Your task to perform on an android device: open the mobile data screen to see how much data has been used Image 0: 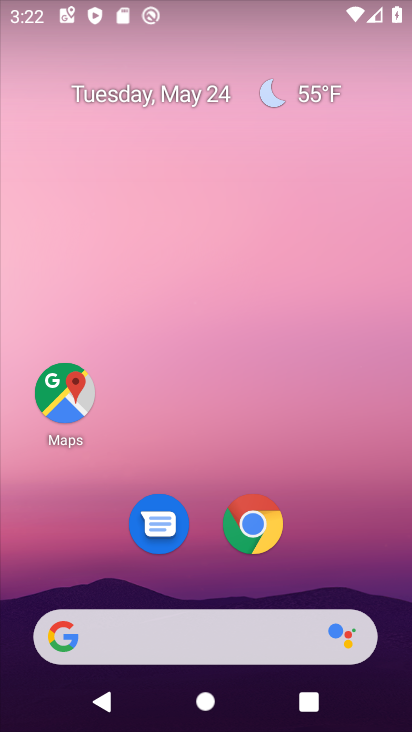
Step 0: drag from (321, 525) to (322, 64)
Your task to perform on an android device: open the mobile data screen to see how much data has been used Image 1: 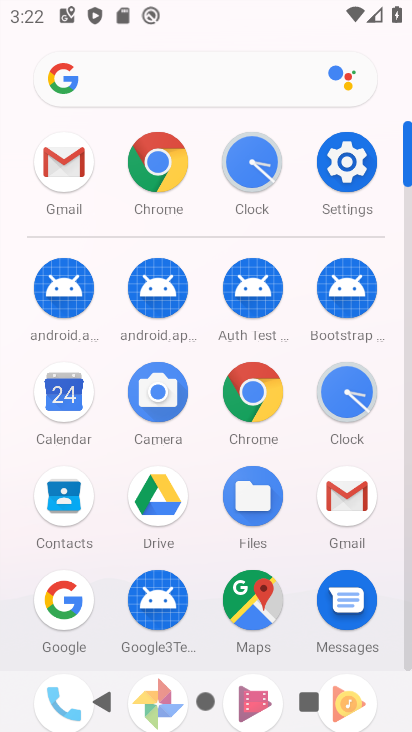
Step 1: click (339, 158)
Your task to perform on an android device: open the mobile data screen to see how much data has been used Image 2: 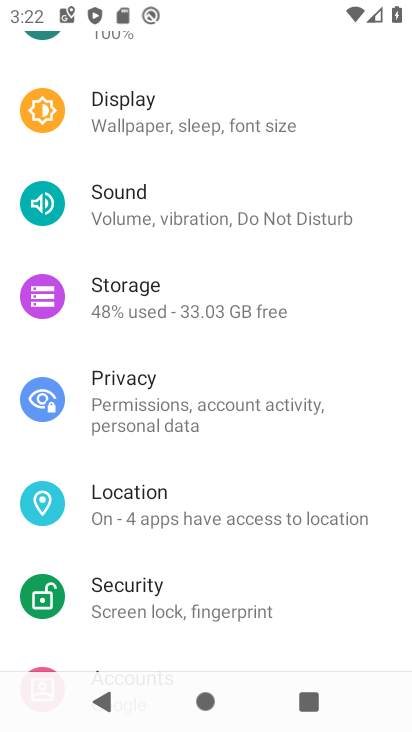
Step 2: drag from (271, 289) to (273, 602)
Your task to perform on an android device: open the mobile data screen to see how much data has been used Image 3: 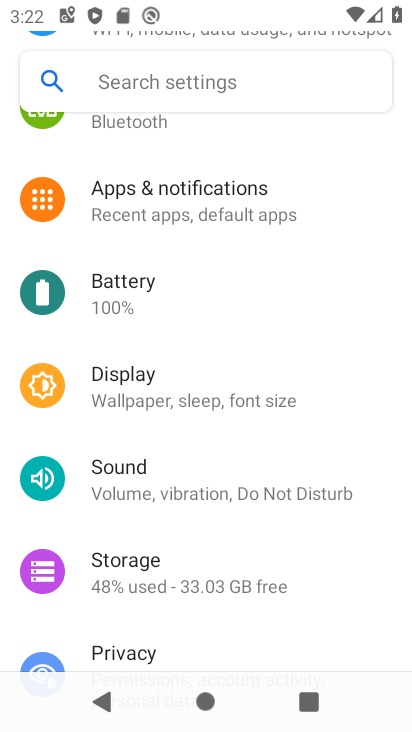
Step 3: drag from (219, 250) to (223, 599)
Your task to perform on an android device: open the mobile data screen to see how much data has been used Image 4: 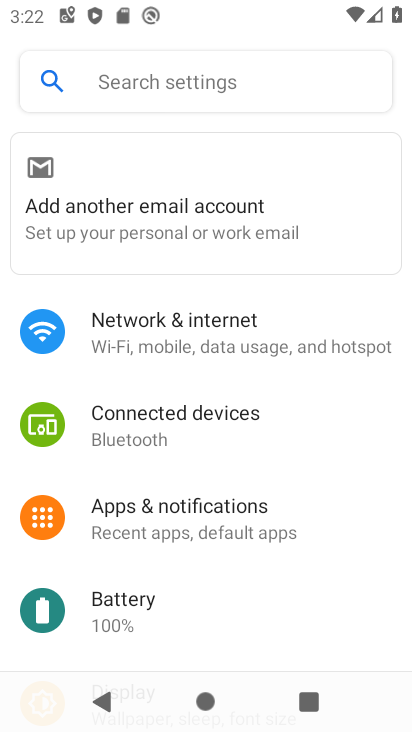
Step 4: click (217, 336)
Your task to perform on an android device: open the mobile data screen to see how much data has been used Image 5: 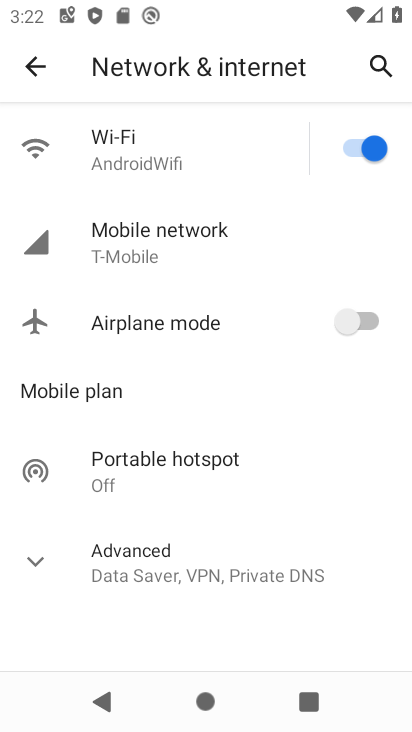
Step 5: click (207, 243)
Your task to perform on an android device: open the mobile data screen to see how much data has been used Image 6: 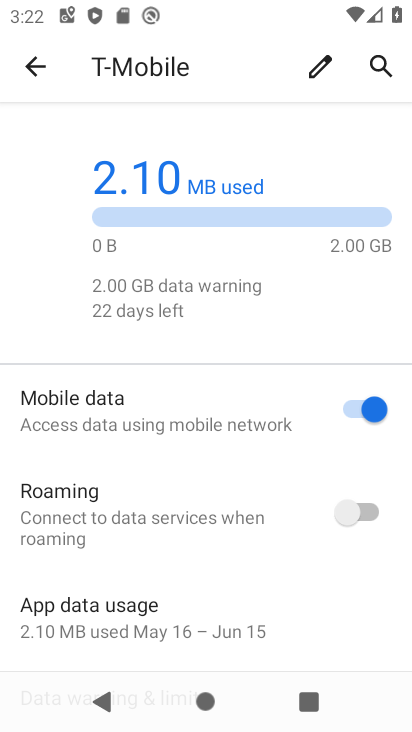
Step 6: task complete